Your task to perform on an android device: See recent photos Image 0: 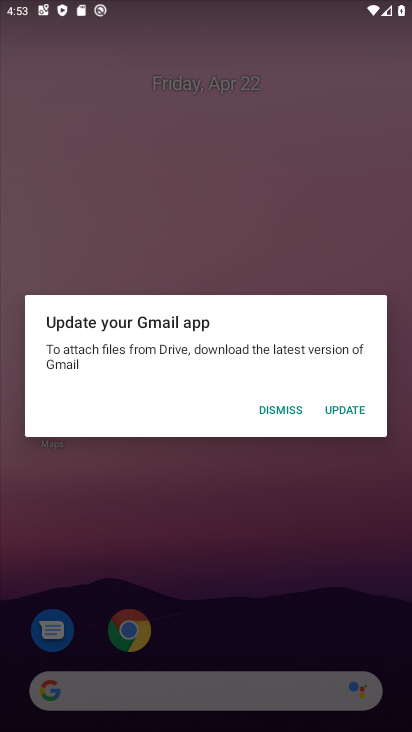
Step 0: drag from (299, 546) to (218, 132)
Your task to perform on an android device: See recent photos Image 1: 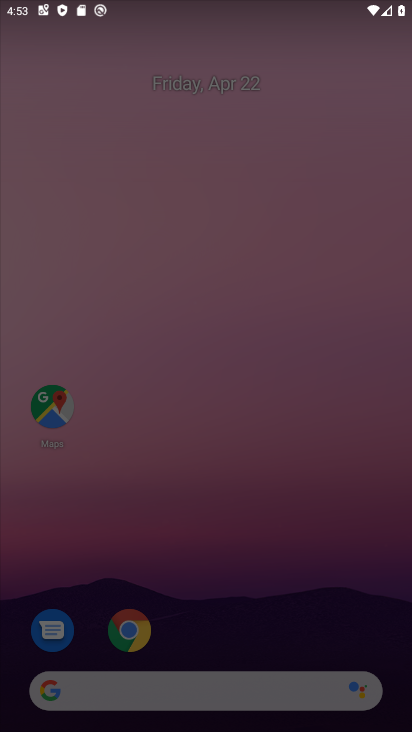
Step 1: press back button
Your task to perform on an android device: See recent photos Image 2: 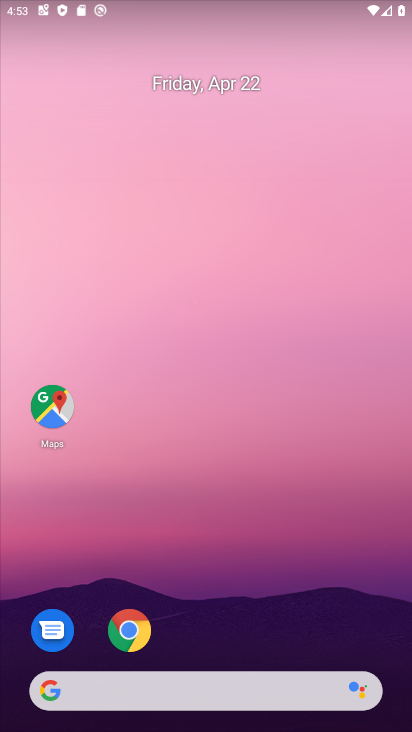
Step 2: drag from (313, 535) to (221, 20)
Your task to perform on an android device: See recent photos Image 3: 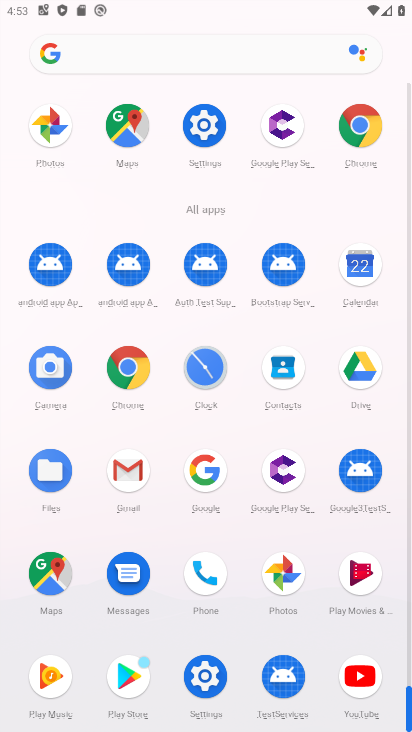
Step 3: drag from (7, 523) to (20, 182)
Your task to perform on an android device: See recent photos Image 4: 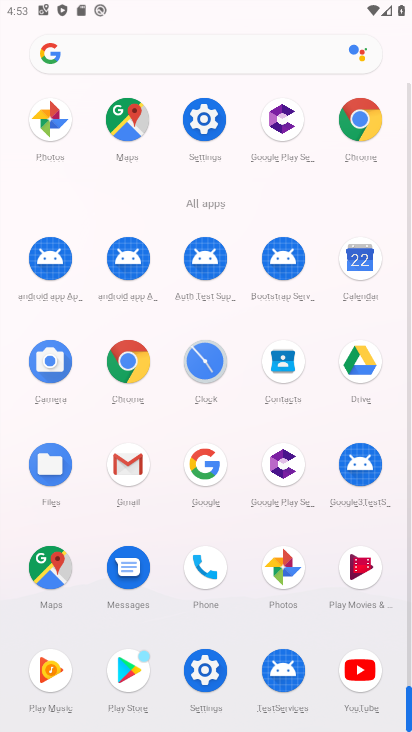
Step 4: click (288, 566)
Your task to perform on an android device: See recent photos Image 5: 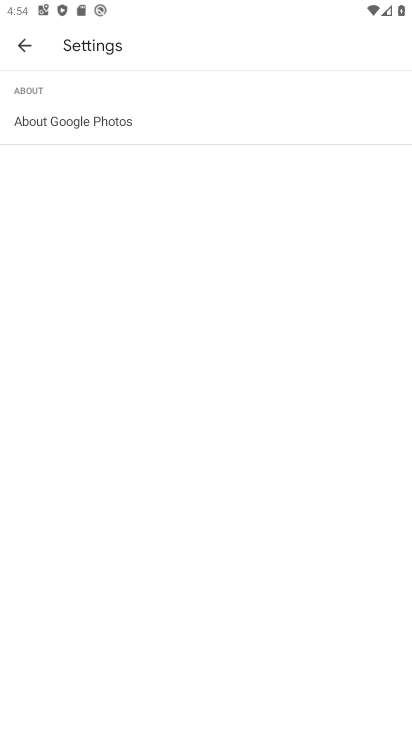
Step 5: click (21, 40)
Your task to perform on an android device: See recent photos Image 6: 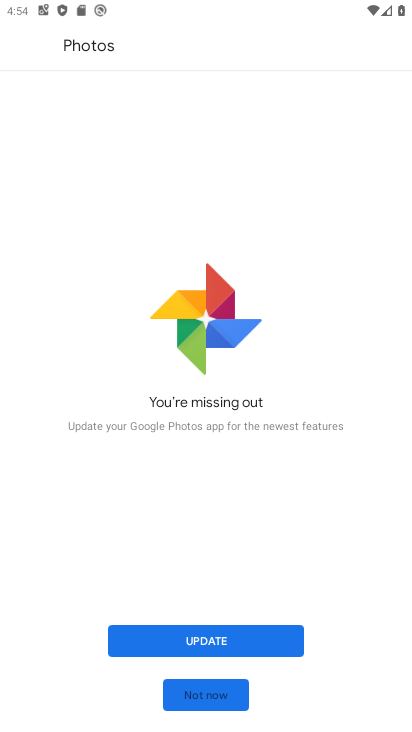
Step 6: click (226, 690)
Your task to perform on an android device: See recent photos Image 7: 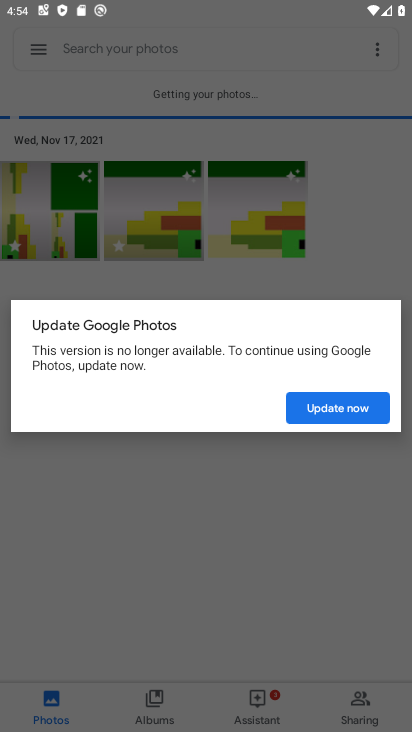
Step 7: click (313, 410)
Your task to perform on an android device: See recent photos Image 8: 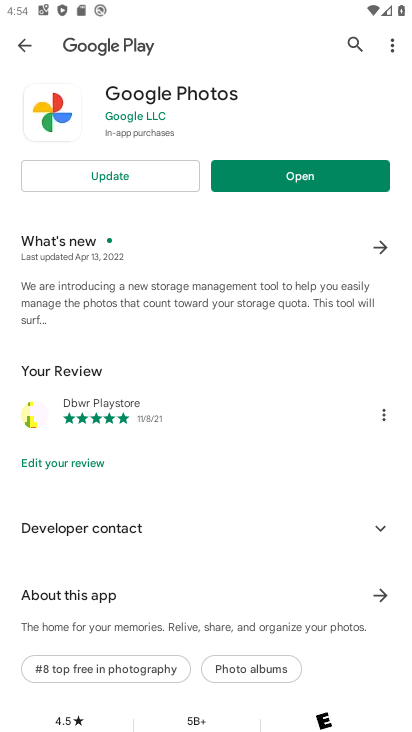
Step 8: click (150, 176)
Your task to perform on an android device: See recent photos Image 9: 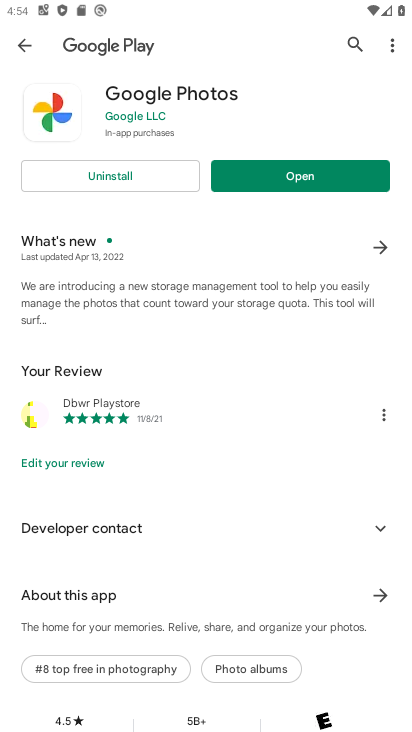
Step 9: click (268, 174)
Your task to perform on an android device: See recent photos Image 10: 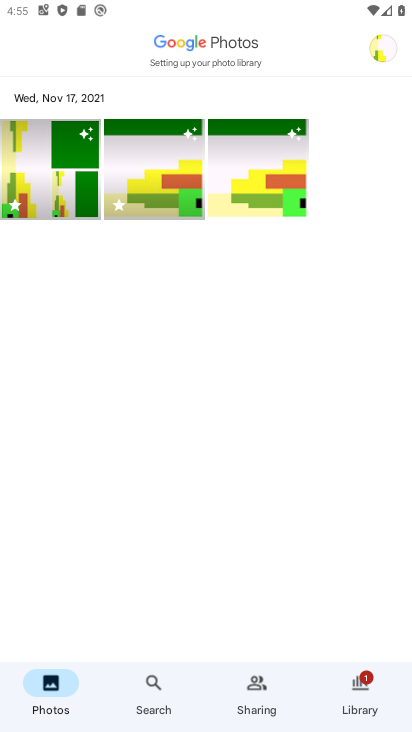
Step 10: task complete